Your task to perform on an android device: check data usage Image 0: 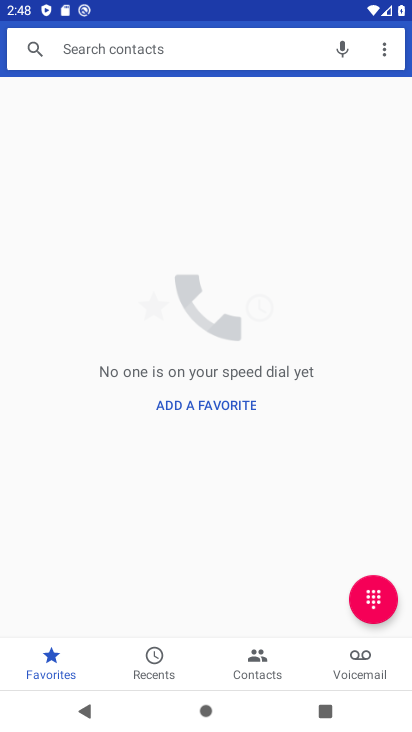
Step 0: press home button
Your task to perform on an android device: check data usage Image 1: 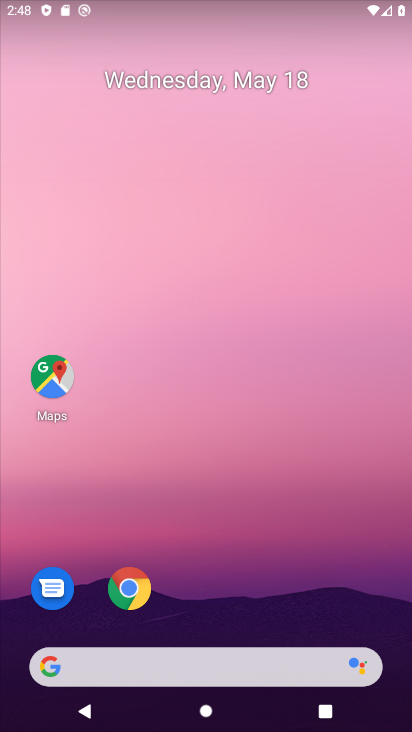
Step 1: drag from (348, 561) to (291, 173)
Your task to perform on an android device: check data usage Image 2: 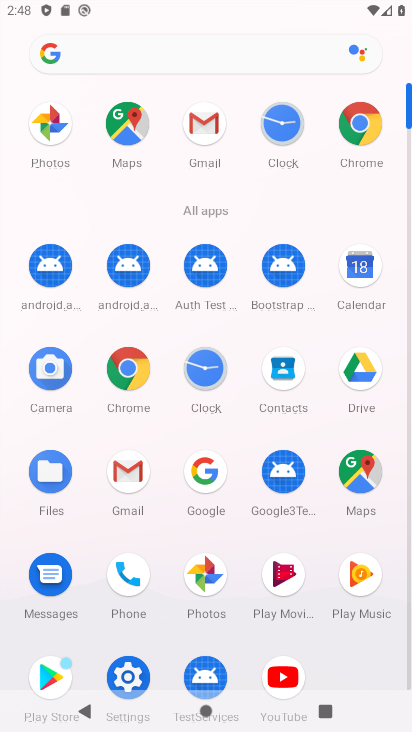
Step 2: click (147, 677)
Your task to perform on an android device: check data usage Image 3: 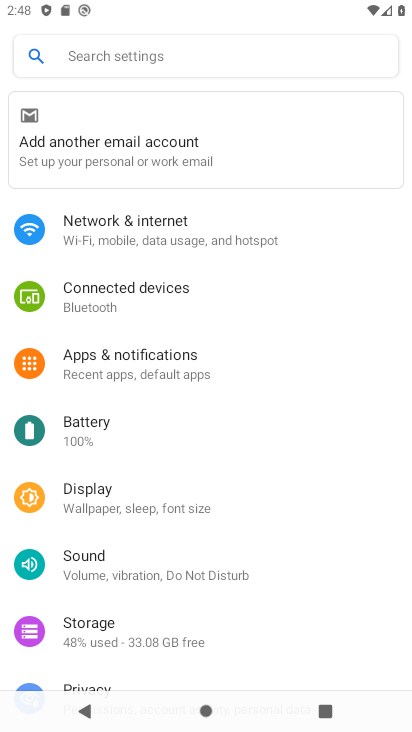
Step 3: click (179, 245)
Your task to perform on an android device: check data usage Image 4: 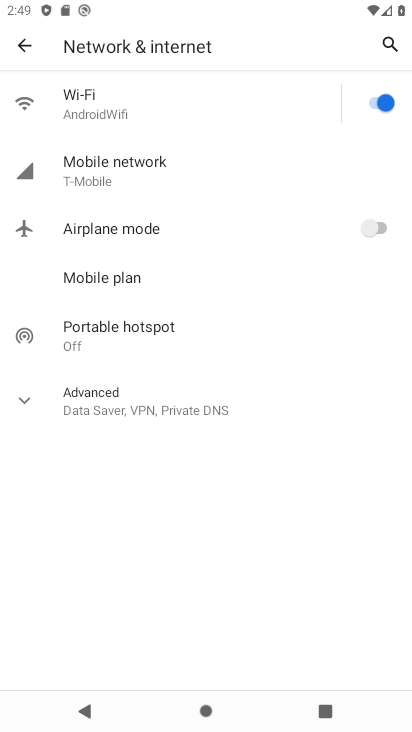
Step 4: click (172, 181)
Your task to perform on an android device: check data usage Image 5: 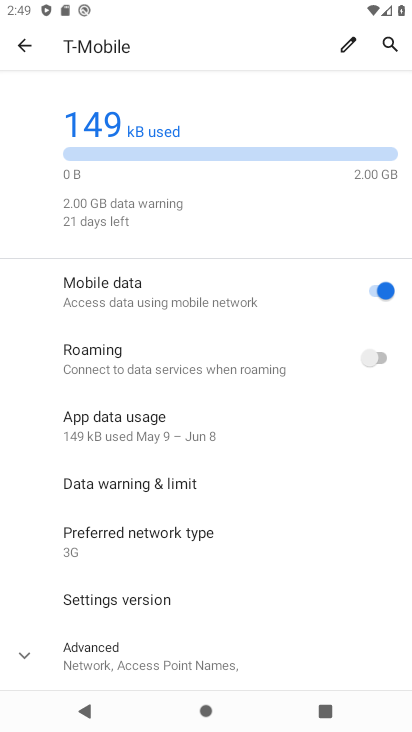
Step 5: task complete